Your task to perform on an android device: Clear the shopping cart on ebay. Add razer deathadder to the cart on ebay Image 0: 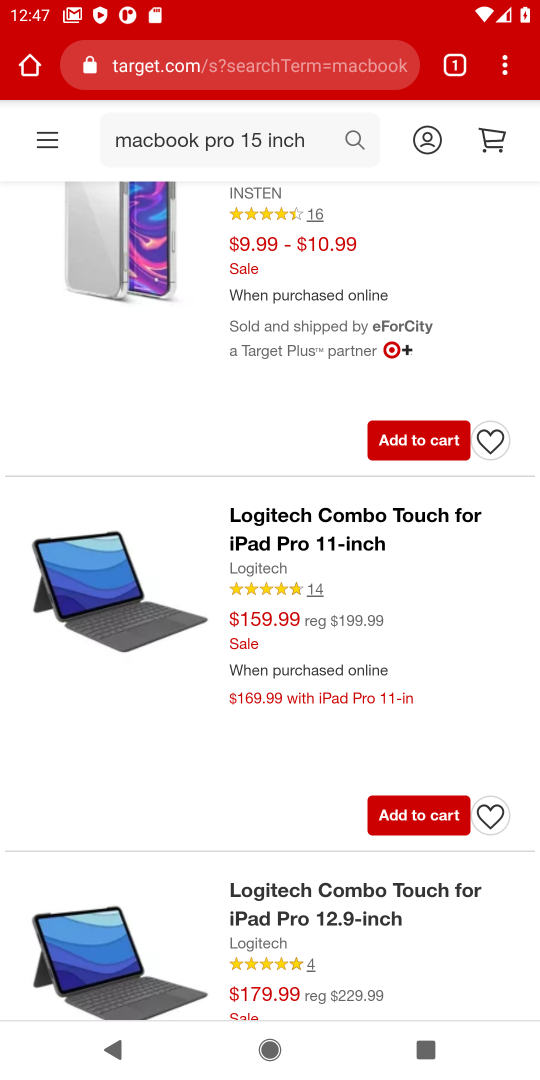
Step 0: click (220, 73)
Your task to perform on an android device: Clear the shopping cart on ebay. Add razer deathadder to the cart on ebay Image 1: 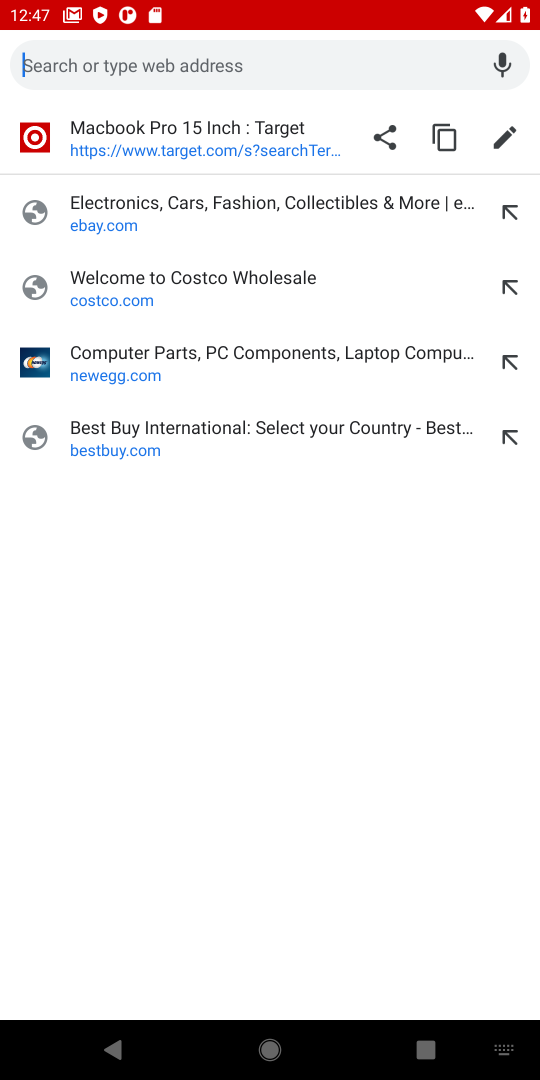
Step 1: click (82, 208)
Your task to perform on an android device: Clear the shopping cart on ebay. Add razer deathadder to the cart on ebay Image 2: 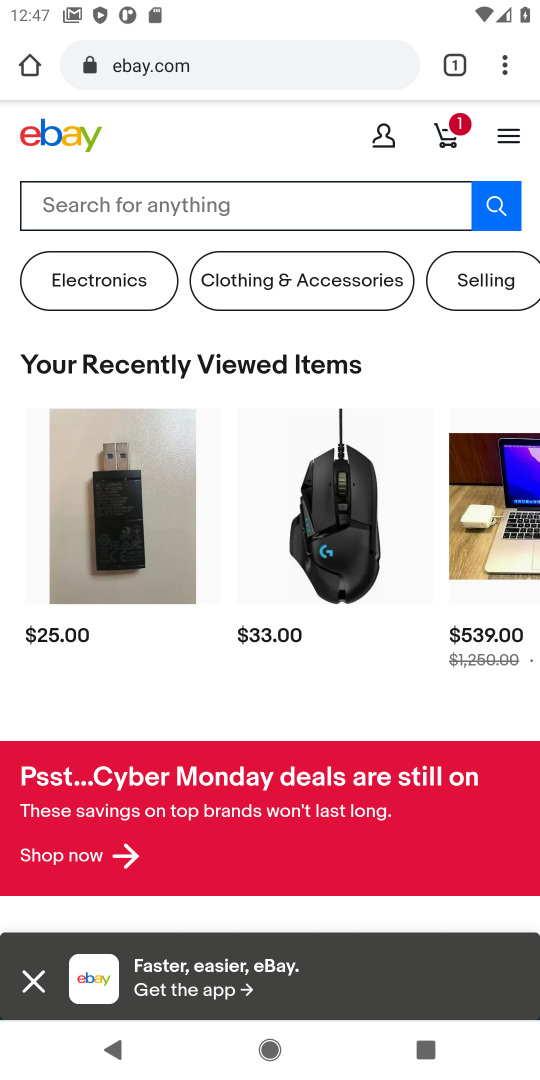
Step 2: click (447, 137)
Your task to perform on an android device: Clear the shopping cart on ebay. Add razer deathadder to the cart on ebay Image 3: 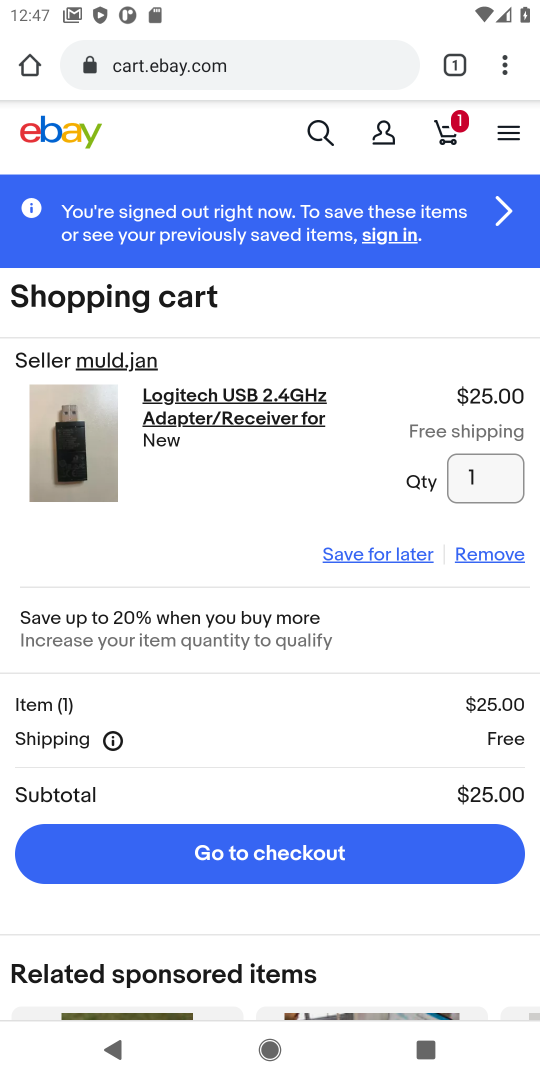
Step 3: click (486, 554)
Your task to perform on an android device: Clear the shopping cart on ebay. Add razer deathadder to the cart on ebay Image 4: 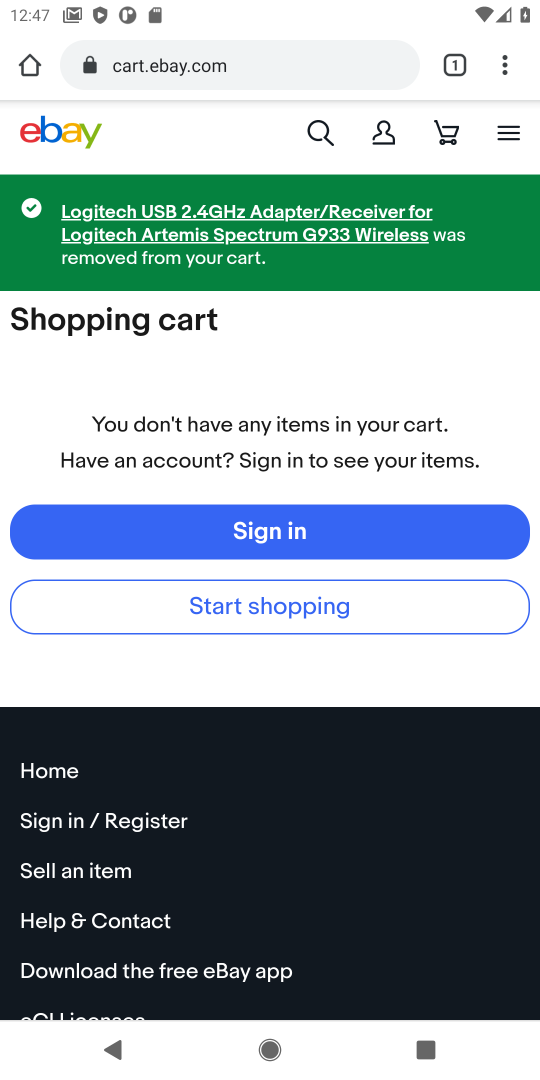
Step 4: click (318, 132)
Your task to perform on an android device: Clear the shopping cart on ebay. Add razer deathadder to the cart on ebay Image 5: 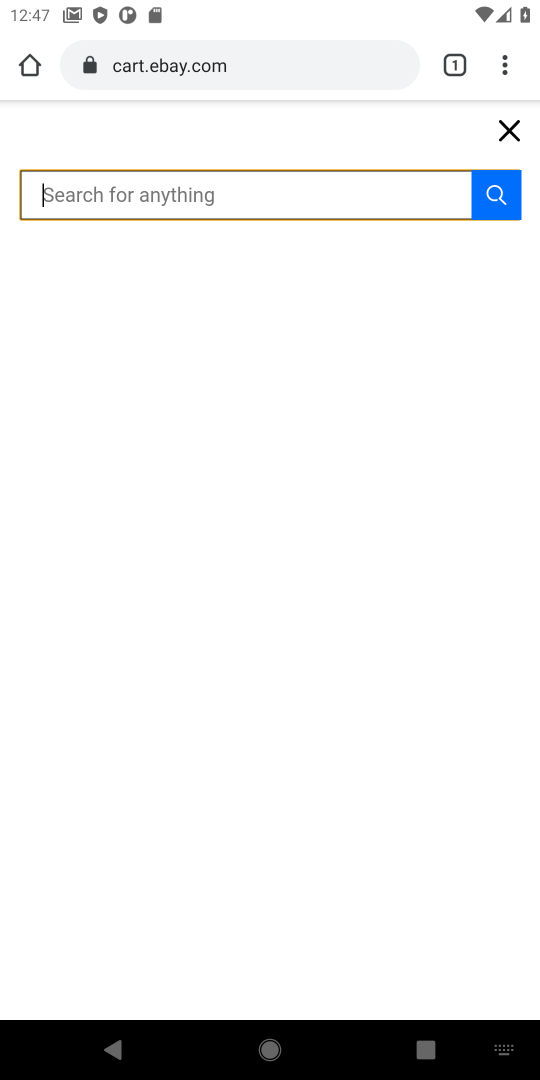
Step 5: type "razer deathadder"
Your task to perform on an android device: Clear the shopping cart on ebay. Add razer deathadder to the cart on ebay Image 6: 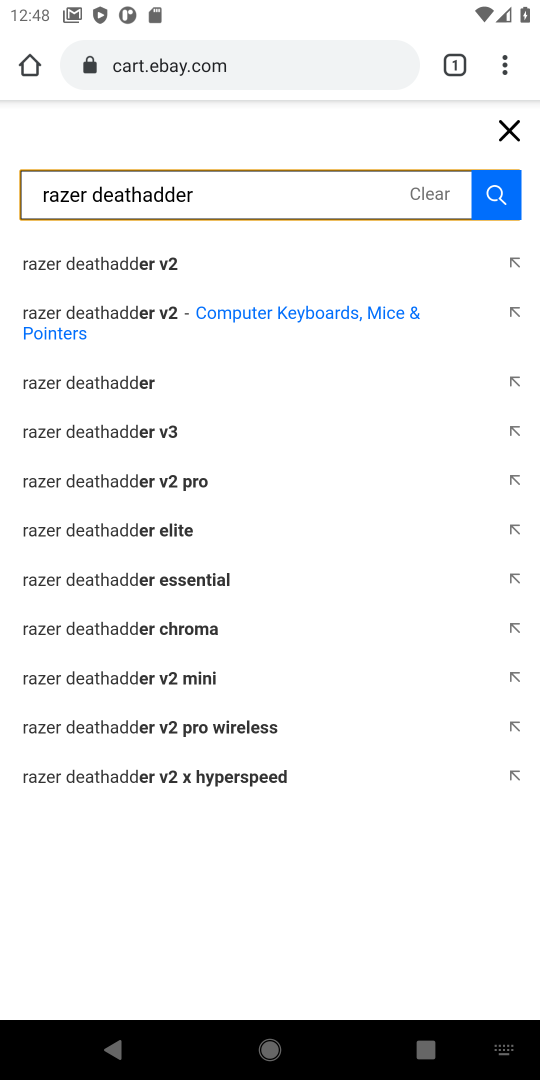
Step 6: click (115, 386)
Your task to perform on an android device: Clear the shopping cart on ebay. Add razer deathadder to the cart on ebay Image 7: 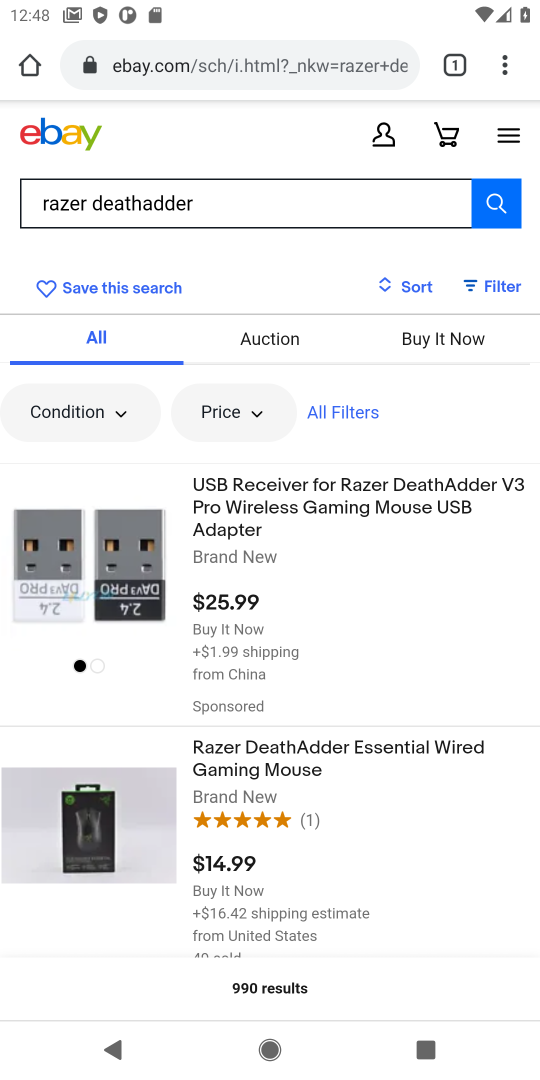
Step 7: click (227, 524)
Your task to perform on an android device: Clear the shopping cart on ebay. Add razer deathadder to the cart on ebay Image 8: 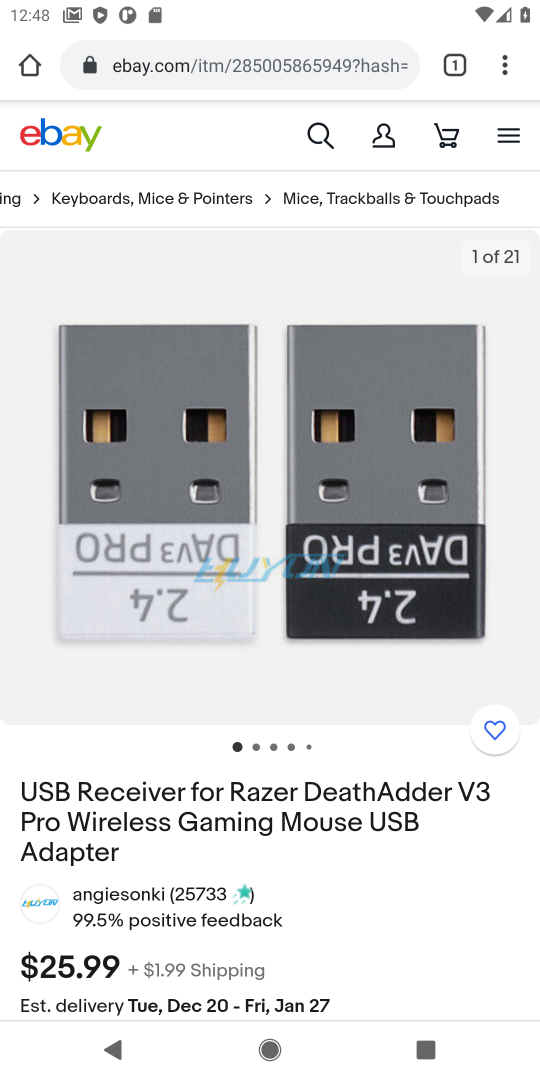
Step 8: drag from (248, 653) to (257, 366)
Your task to perform on an android device: Clear the shopping cart on ebay. Add razer deathadder to the cart on ebay Image 9: 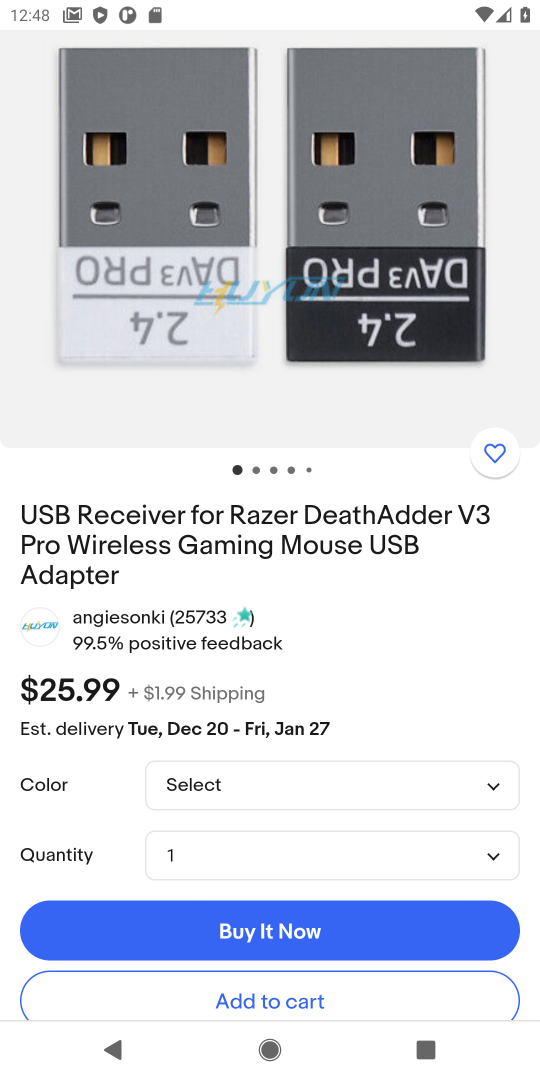
Step 9: click (221, 992)
Your task to perform on an android device: Clear the shopping cart on ebay. Add razer deathadder to the cart on ebay Image 10: 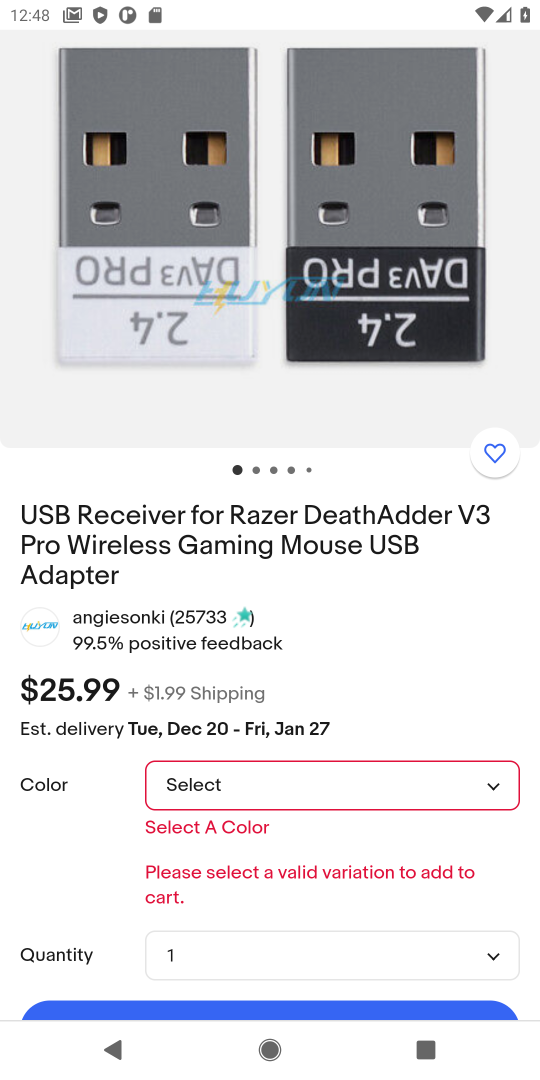
Step 10: click (498, 785)
Your task to perform on an android device: Clear the shopping cart on ebay. Add razer deathadder to the cart on ebay Image 11: 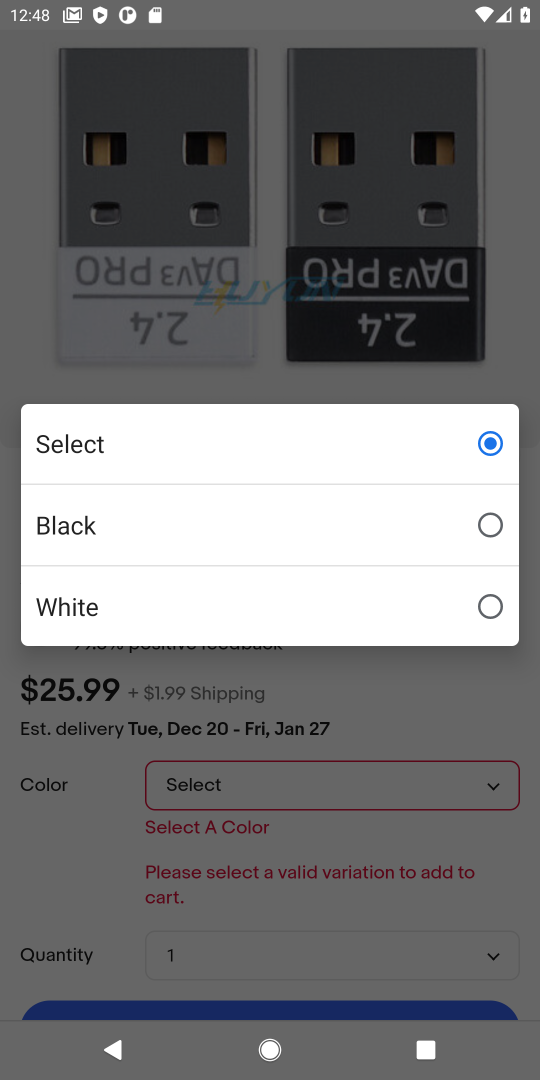
Step 11: click (61, 514)
Your task to perform on an android device: Clear the shopping cart on ebay. Add razer deathadder to the cart on ebay Image 12: 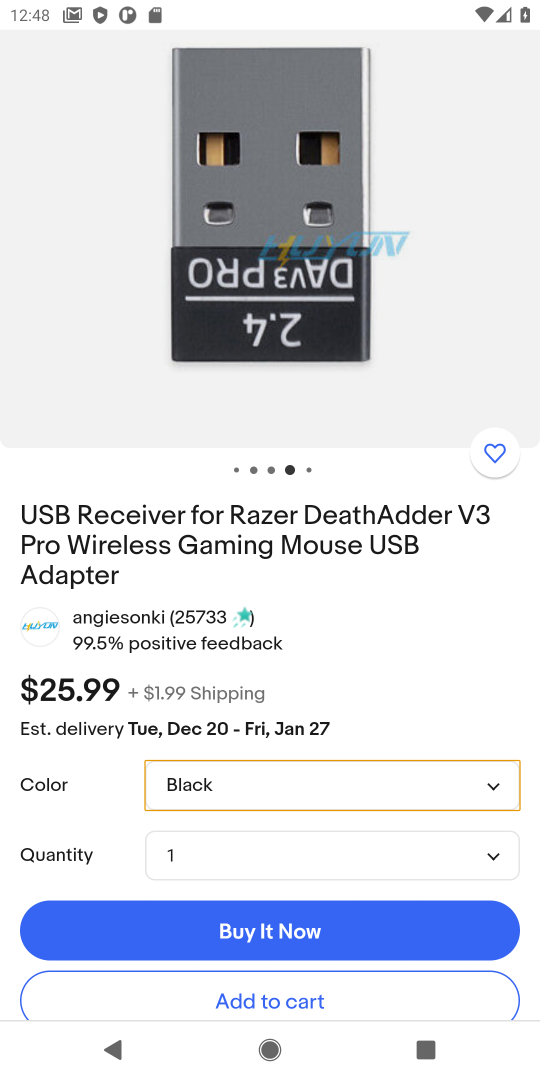
Step 12: drag from (325, 793) to (341, 460)
Your task to perform on an android device: Clear the shopping cart on ebay. Add razer deathadder to the cart on ebay Image 13: 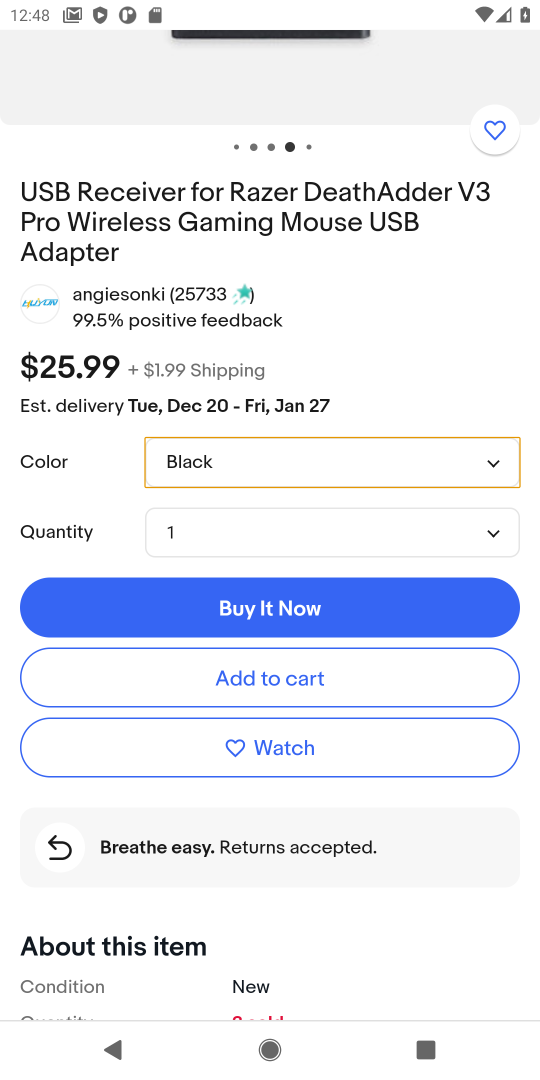
Step 13: click (252, 678)
Your task to perform on an android device: Clear the shopping cart on ebay. Add razer deathadder to the cart on ebay Image 14: 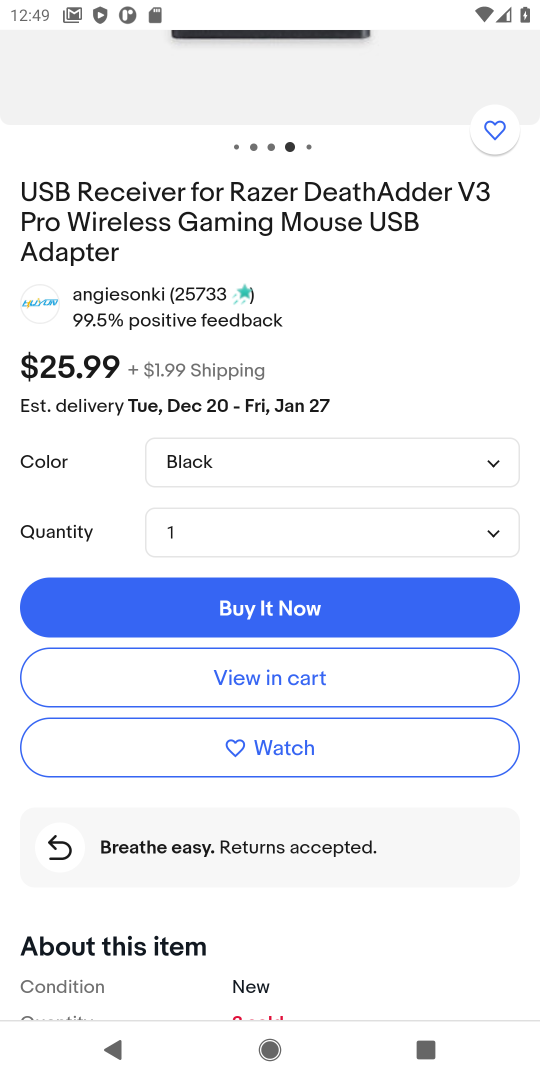
Step 14: task complete